Your task to perform on an android device: What's the weather like in New York? Image 0: 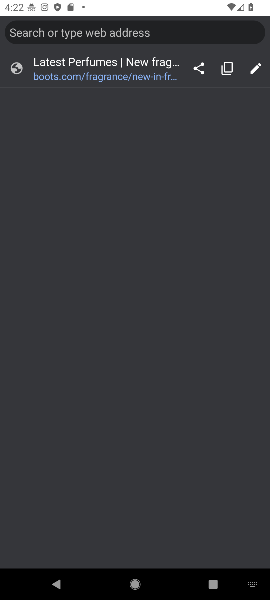
Step 0: type "What's the weather like in New York?"
Your task to perform on an android device: What's the weather like in New York? Image 1: 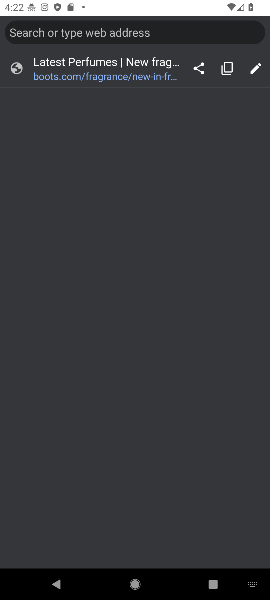
Step 1: click (77, 32)
Your task to perform on an android device: What's the weather like in New York? Image 2: 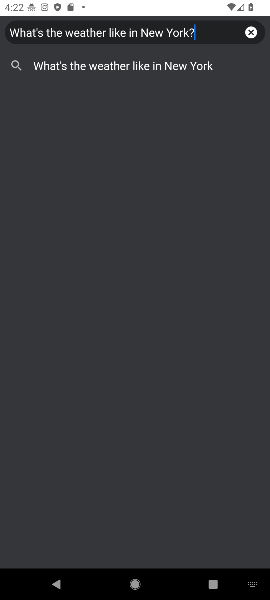
Step 2: type ""
Your task to perform on an android device: What's the weather like in New York? Image 3: 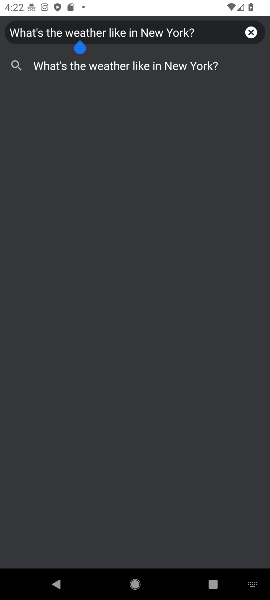
Step 3: click (124, 67)
Your task to perform on an android device: What's the weather like in New York? Image 4: 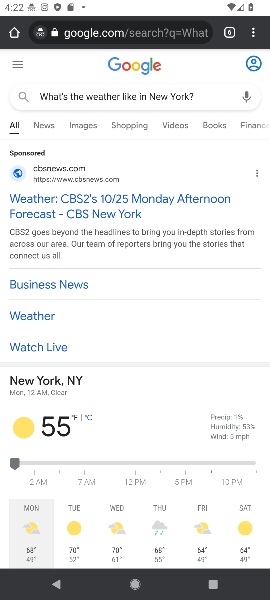
Step 4: task complete